Your task to perform on an android device: Open Chrome and go to settings Image 0: 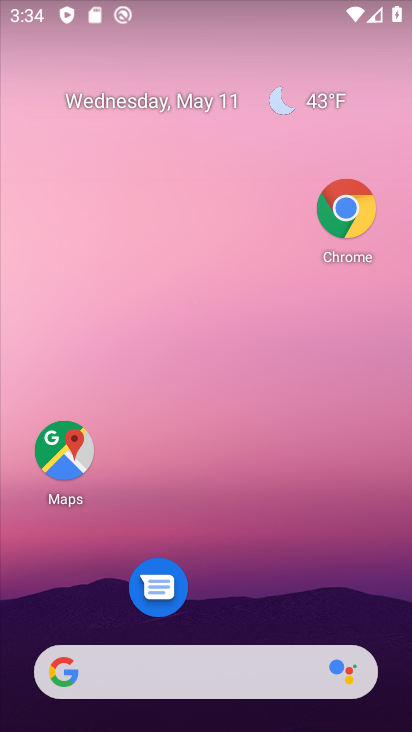
Step 0: click (379, 219)
Your task to perform on an android device: Open Chrome and go to settings Image 1: 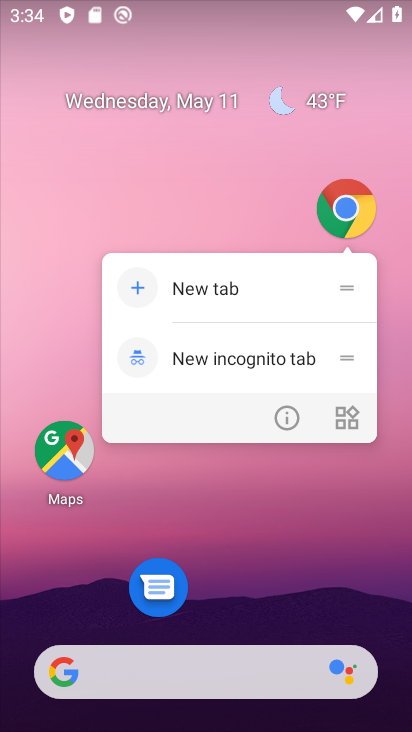
Step 1: click (373, 227)
Your task to perform on an android device: Open Chrome and go to settings Image 2: 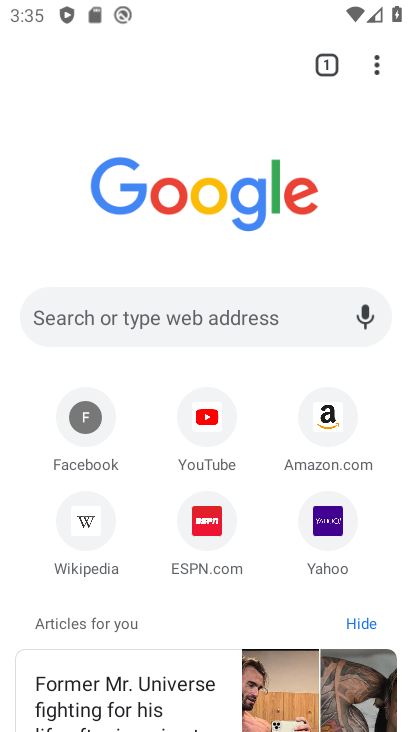
Step 2: click (382, 56)
Your task to perform on an android device: Open Chrome and go to settings Image 3: 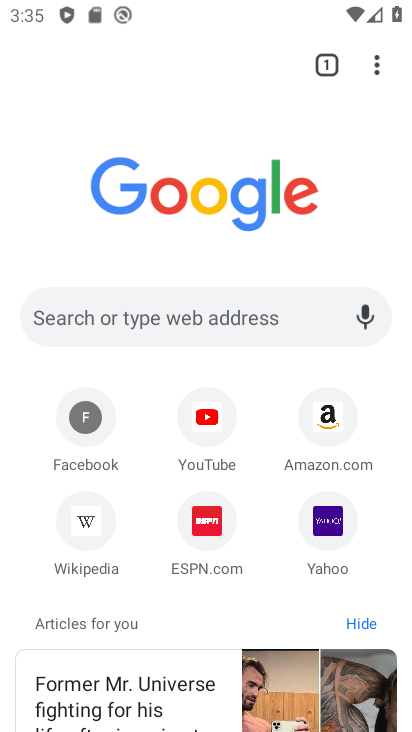
Step 3: click (370, 67)
Your task to perform on an android device: Open Chrome and go to settings Image 4: 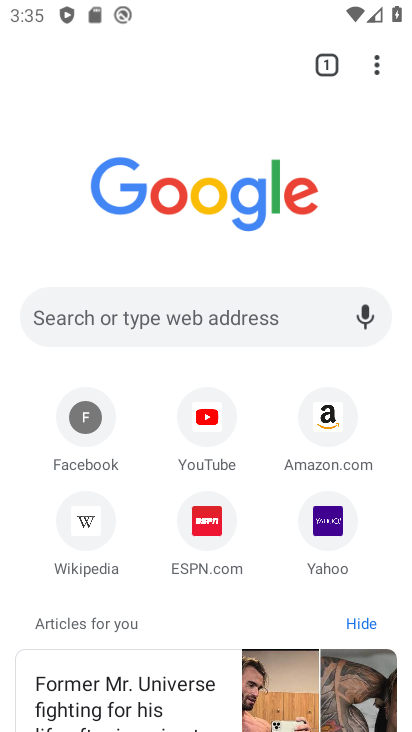
Step 4: click (369, 67)
Your task to perform on an android device: Open Chrome and go to settings Image 5: 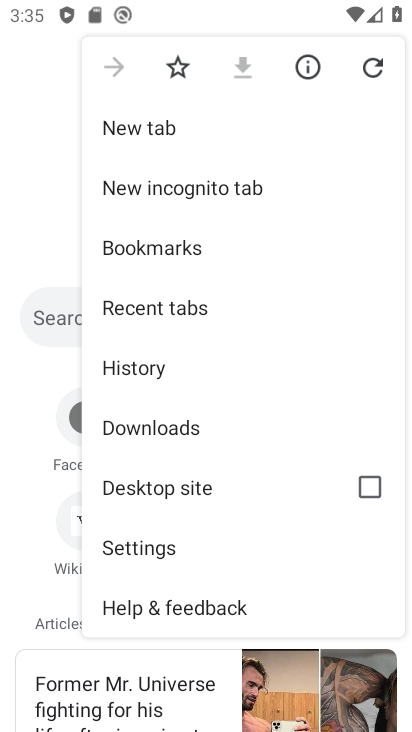
Step 5: click (131, 562)
Your task to perform on an android device: Open Chrome and go to settings Image 6: 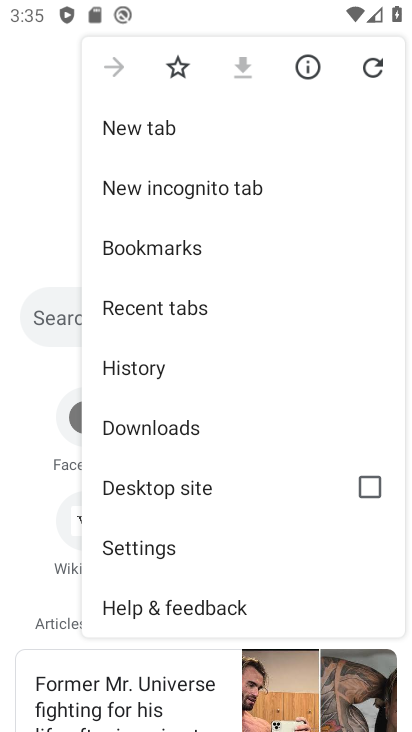
Step 6: click (138, 554)
Your task to perform on an android device: Open Chrome and go to settings Image 7: 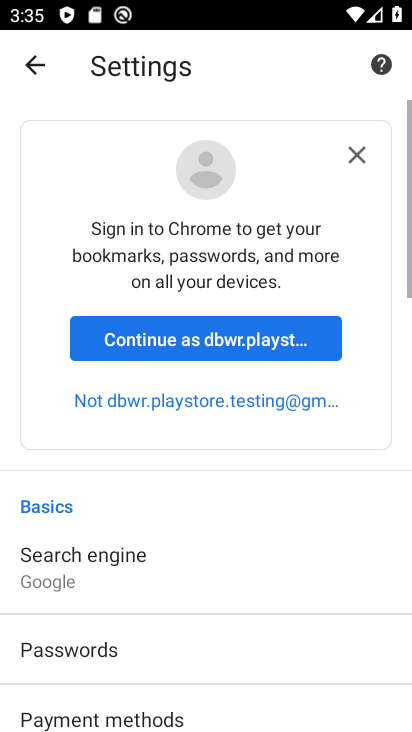
Step 7: task complete